Your task to perform on an android device: Open network settings Image 0: 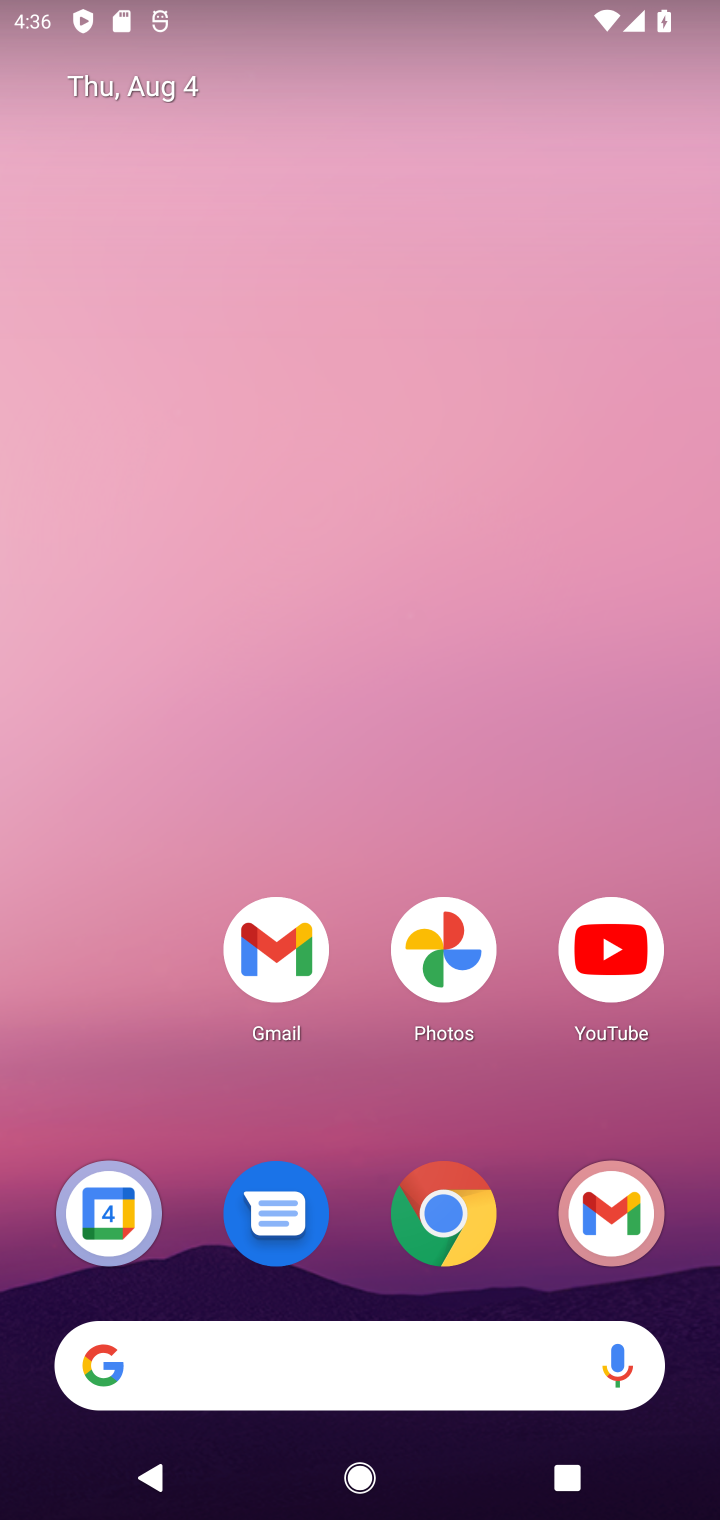
Step 0: press home button
Your task to perform on an android device: Open network settings Image 1: 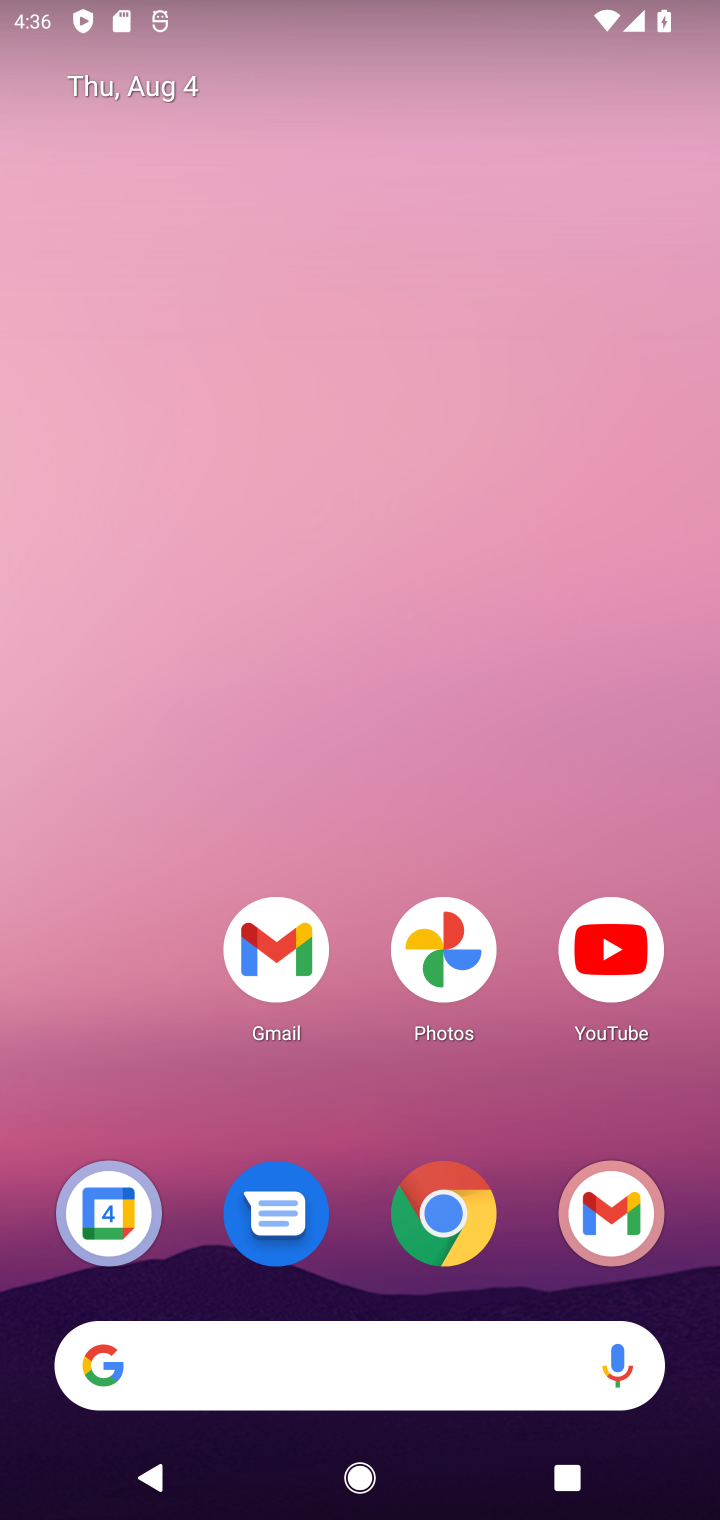
Step 1: drag from (68, 1054) to (105, 276)
Your task to perform on an android device: Open network settings Image 2: 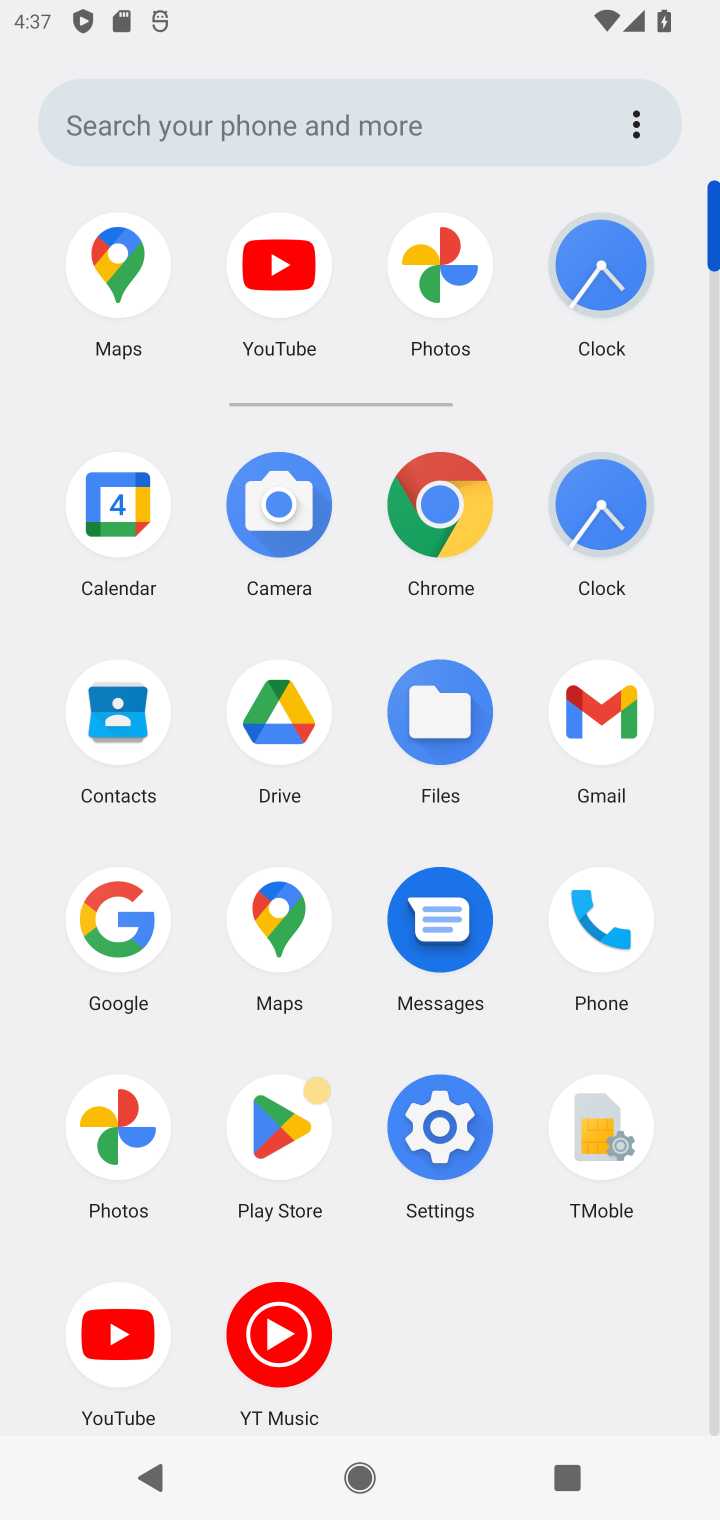
Step 2: click (448, 1140)
Your task to perform on an android device: Open network settings Image 3: 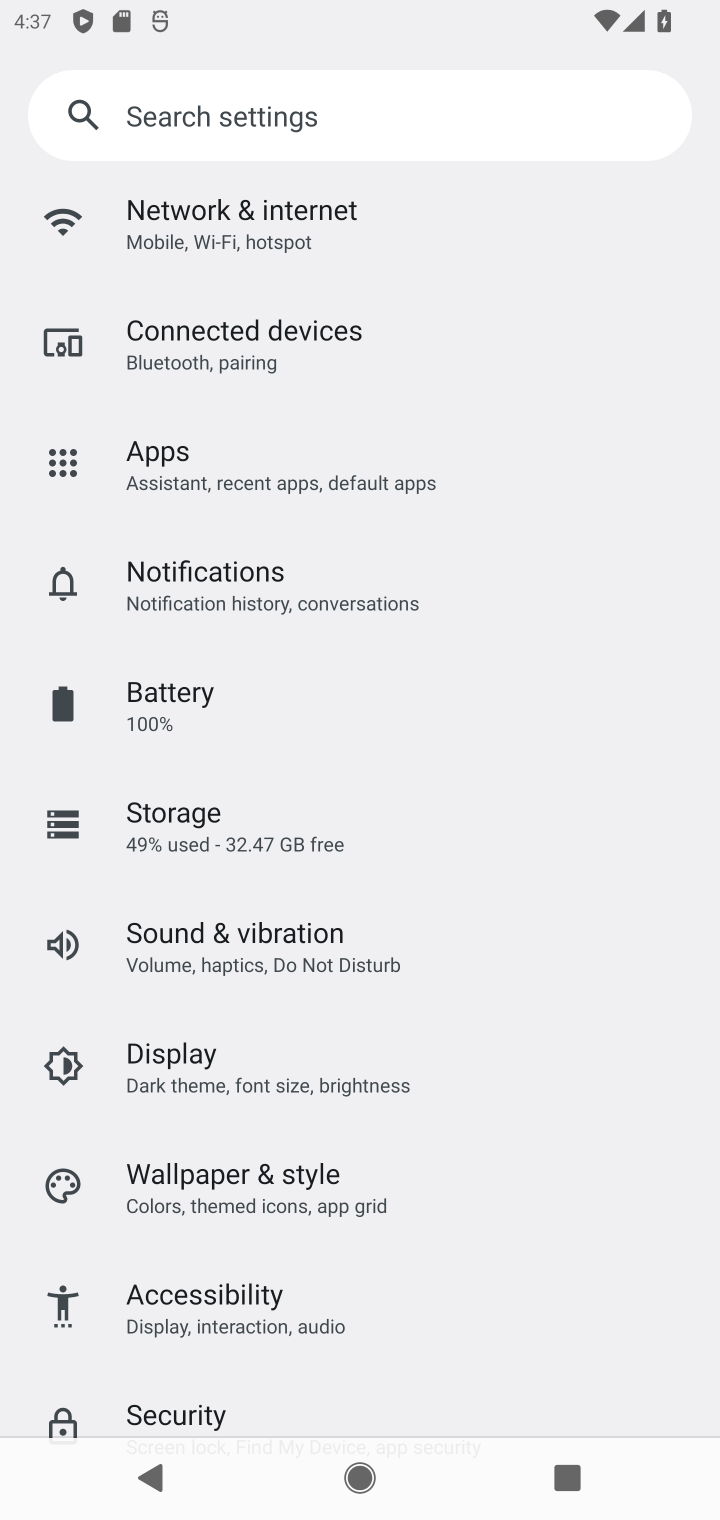
Step 3: drag from (554, 1315) to (525, 761)
Your task to perform on an android device: Open network settings Image 4: 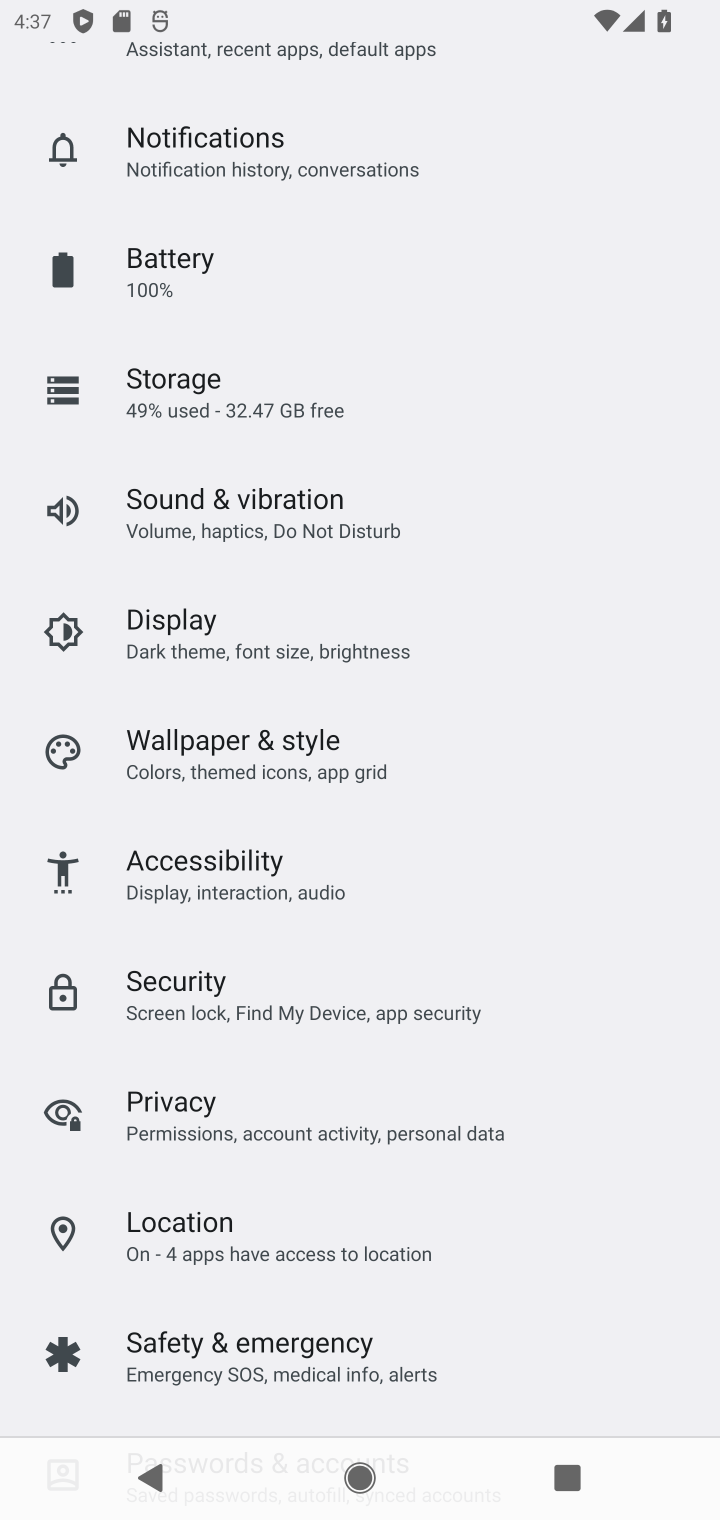
Step 4: drag from (537, 1281) to (575, 771)
Your task to perform on an android device: Open network settings Image 5: 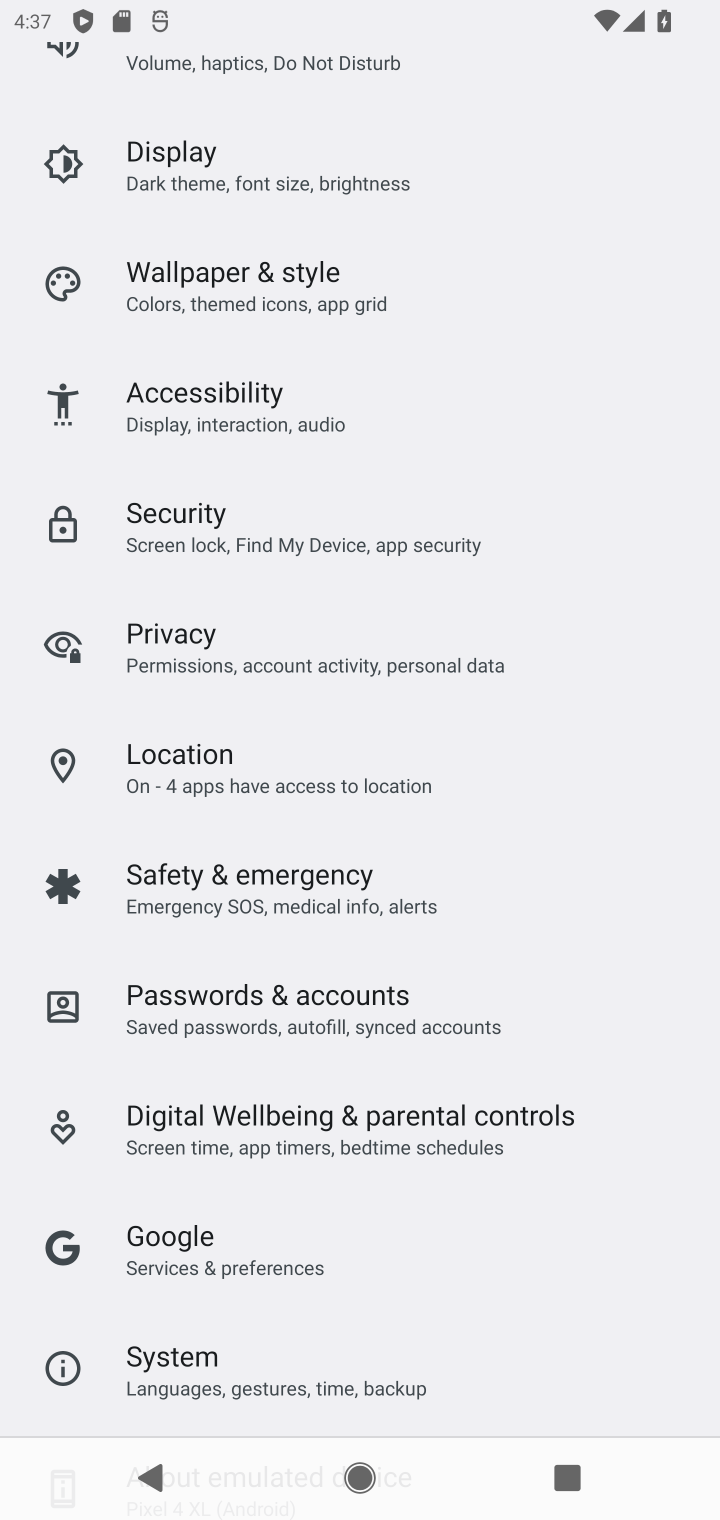
Step 5: drag from (567, 1300) to (591, 770)
Your task to perform on an android device: Open network settings Image 6: 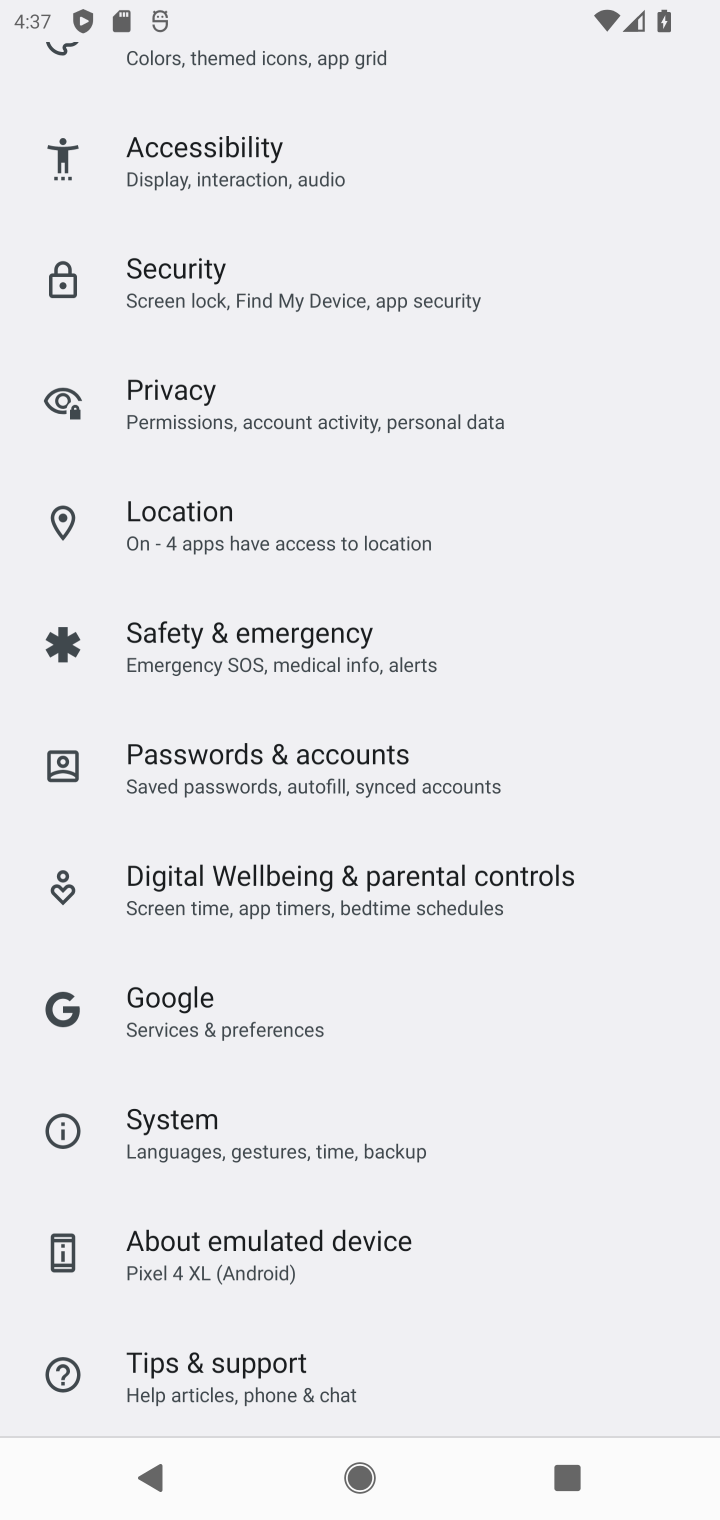
Step 6: drag from (556, 1264) to (612, 720)
Your task to perform on an android device: Open network settings Image 7: 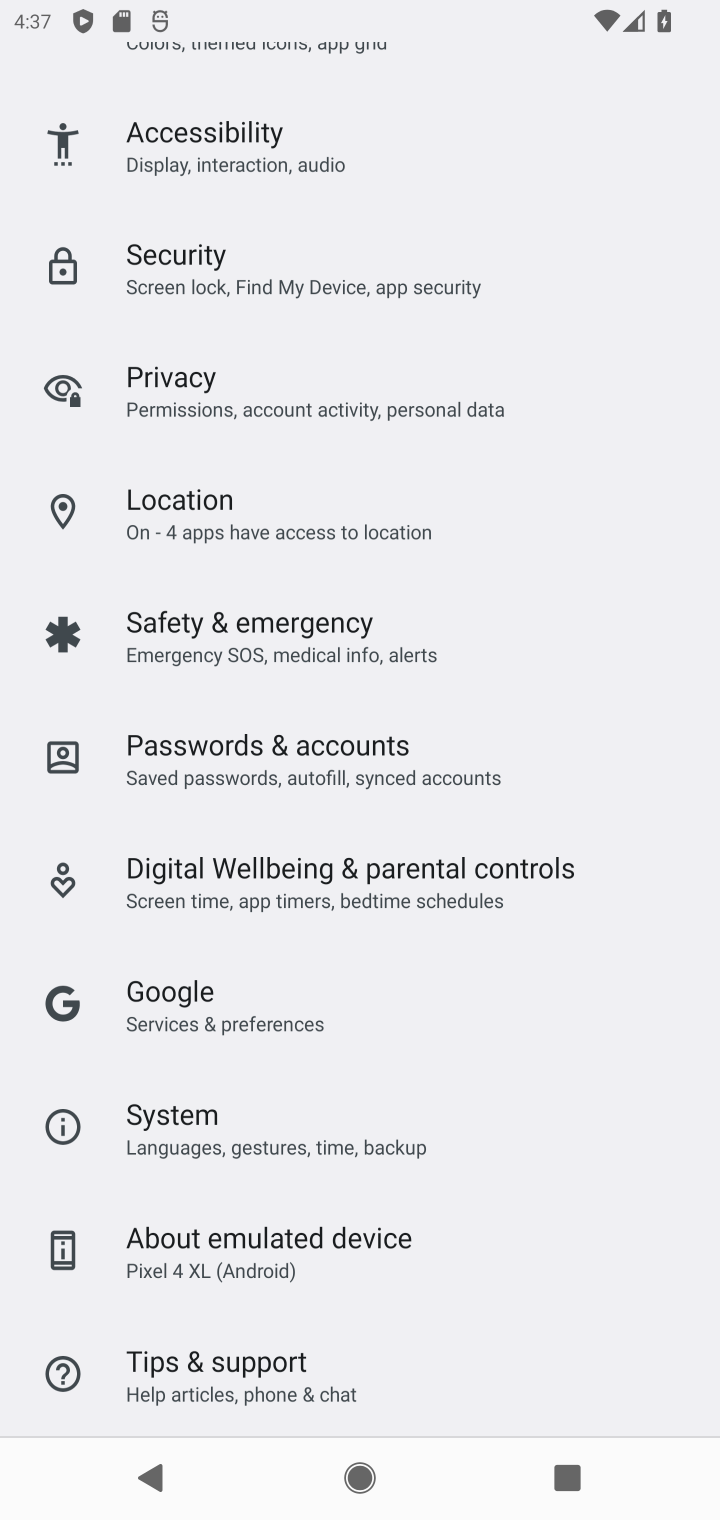
Step 7: drag from (643, 577) to (600, 956)
Your task to perform on an android device: Open network settings Image 8: 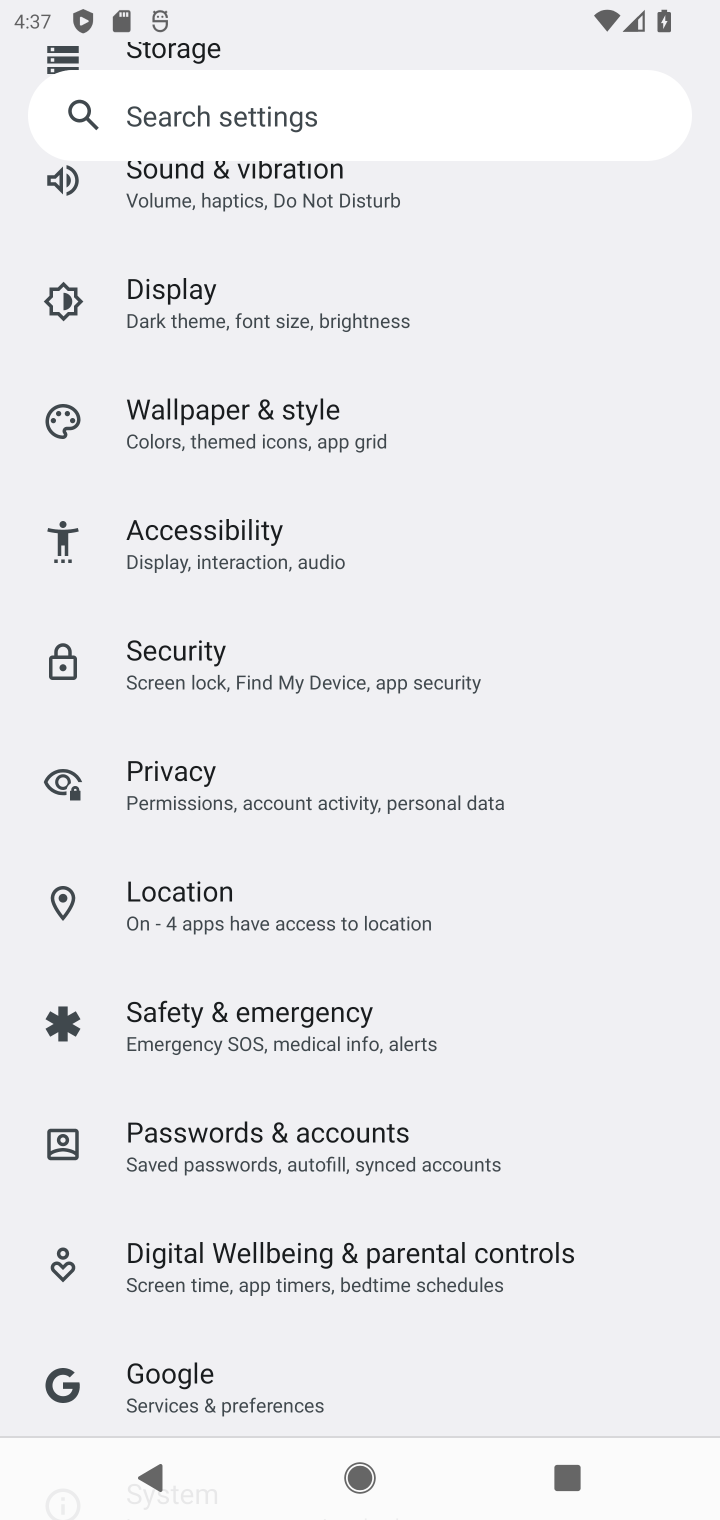
Step 8: drag from (610, 551) to (599, 932)
Your task to perform on an android device: Open network settings Image 9: 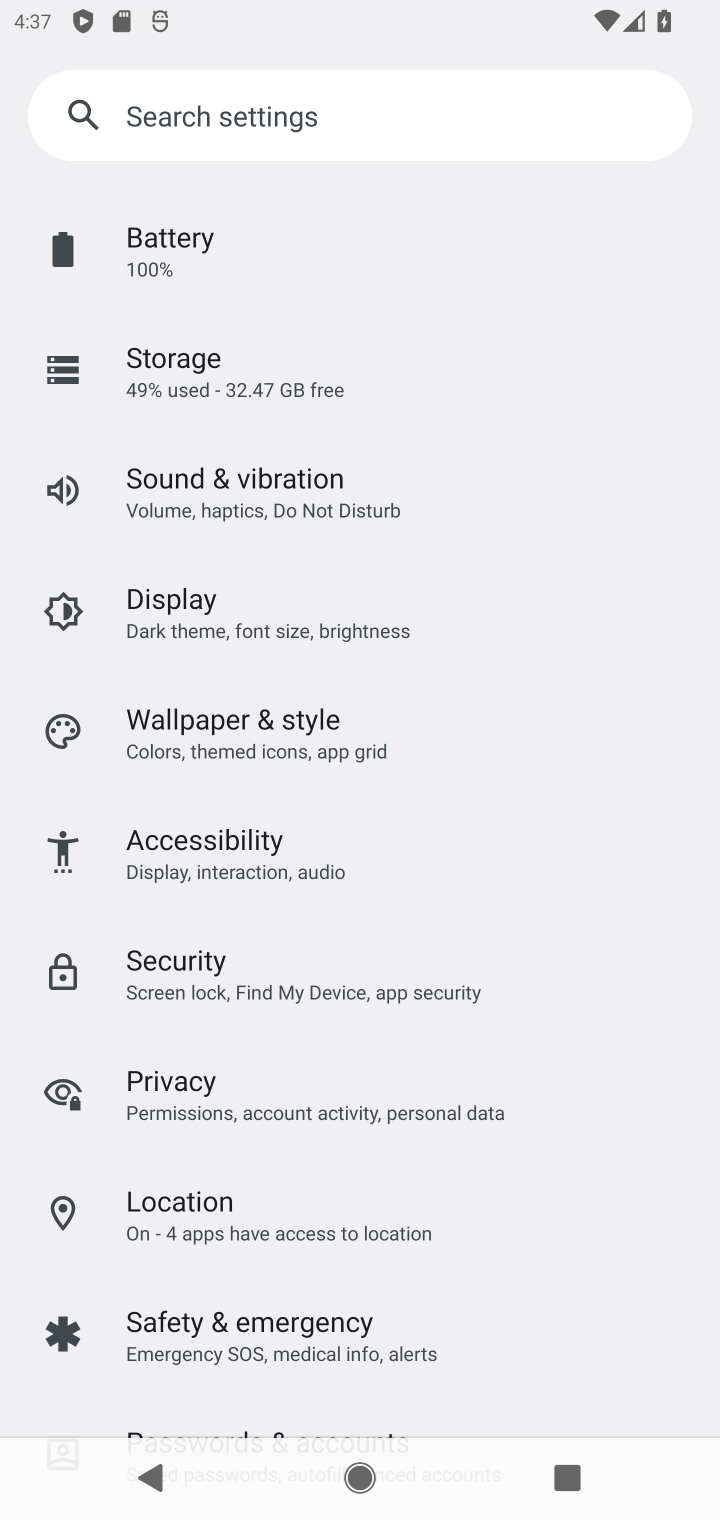
Step 9: drag from (568, 443) to (599, 828)
Your task to perform on an android device: Open network settings Image 10: 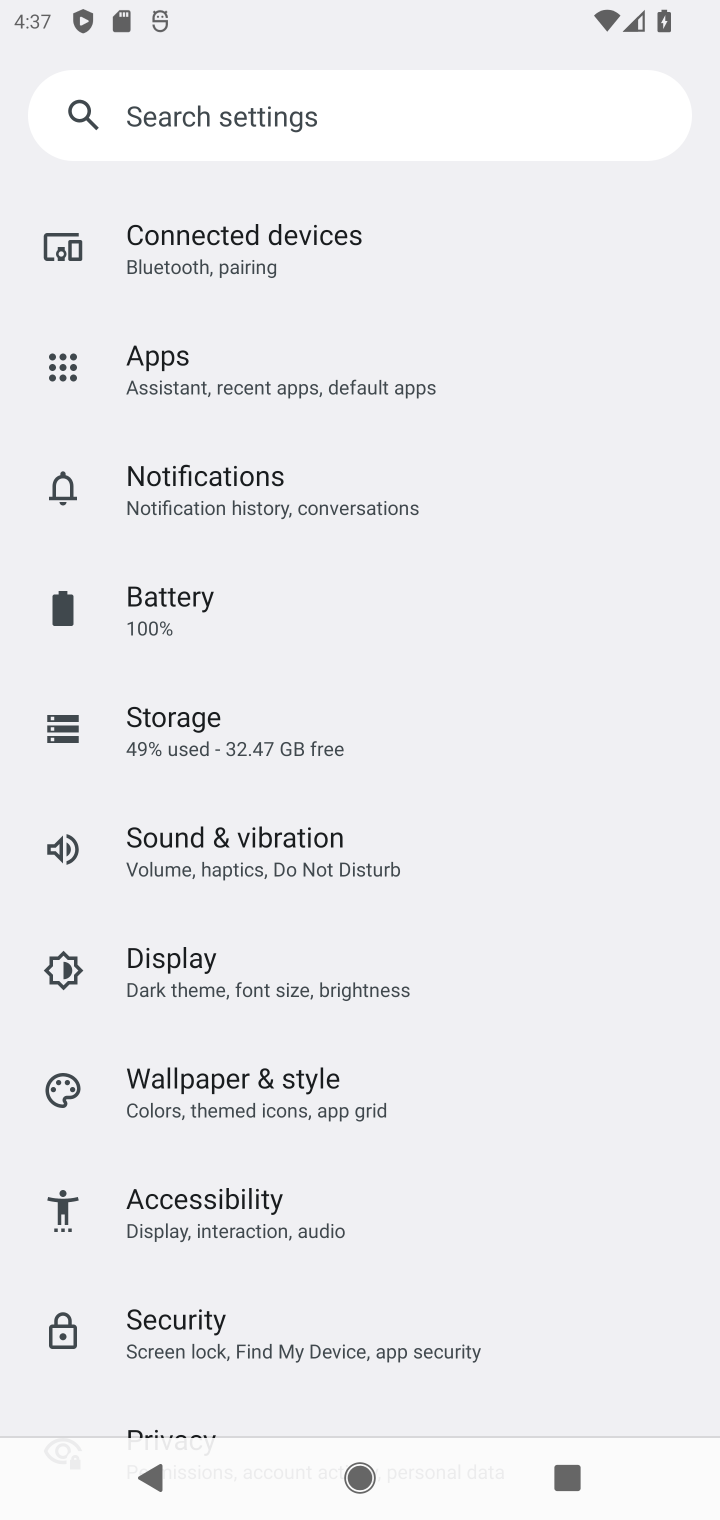
Step 10: drag from (550, 350) to (546, 834)
Your task to perform on an android device: Open network settings Image 11: 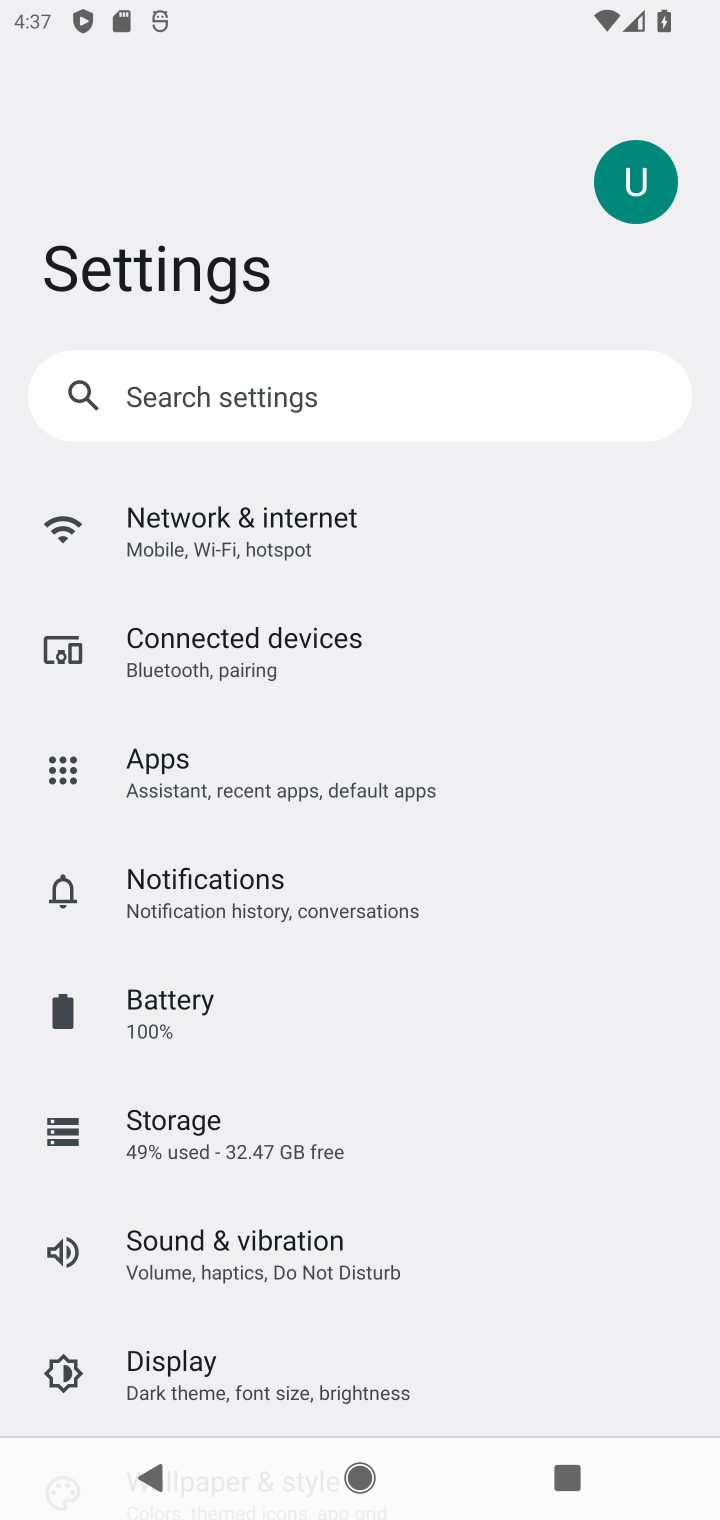
Step 11: click (307, 537)
Your task to perform on an android device: Open network settings Image 12: 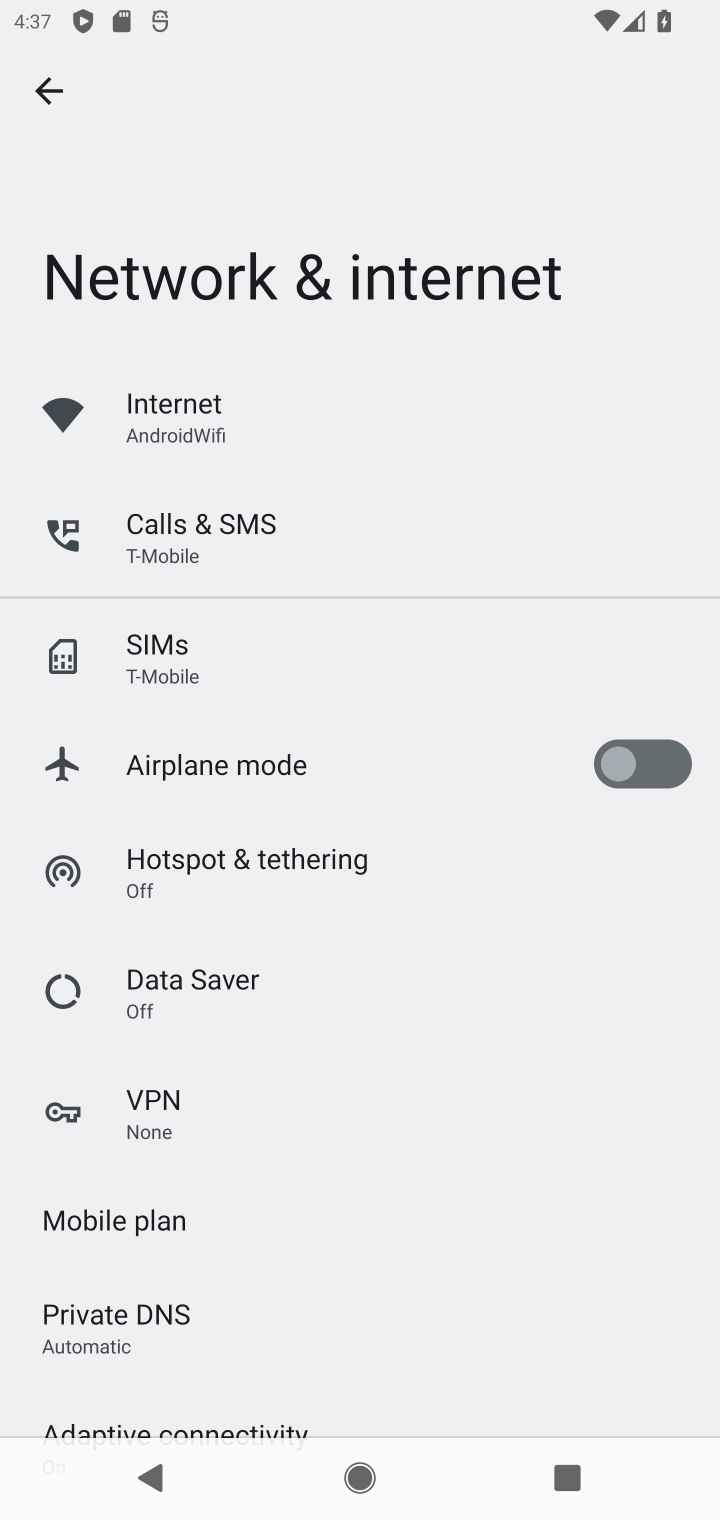
Step 12: task complete